Your task to perform on an android device: add a contact in the contacts app Image 0: 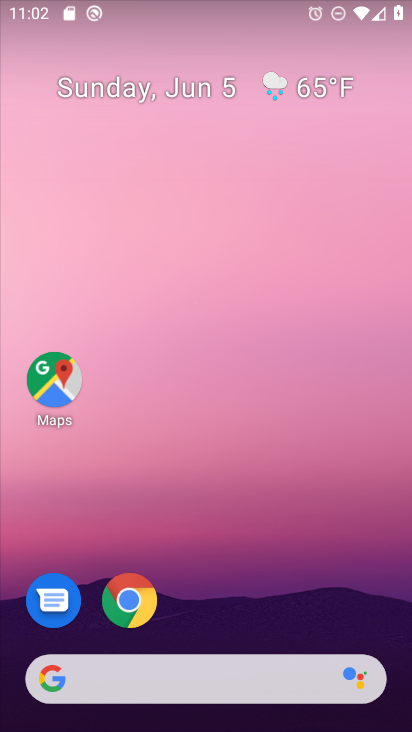
Step 0: drag from (326, 320) to (285, 140)
Your task to perform on an android device: add a contact in the contacts app Image 1: 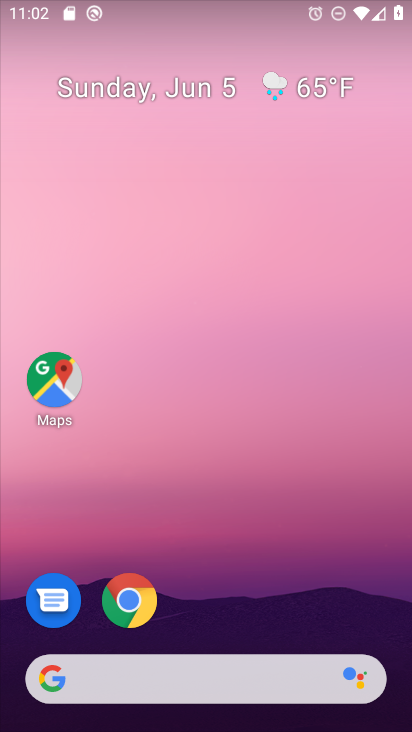
Step 1: drag from (331, 619) to (216, 4)
Your task to perform on an android device: add a contact in the contacts app Image 2: 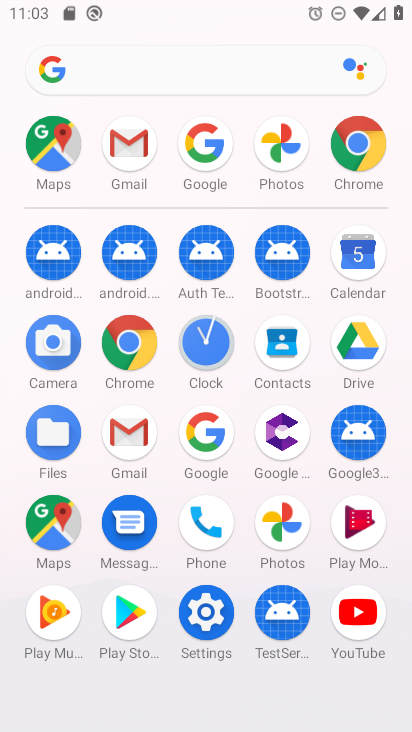
Step 2: click (286, 371)
Your task to perform on an android device: add a contact in the contacts app Image 3: 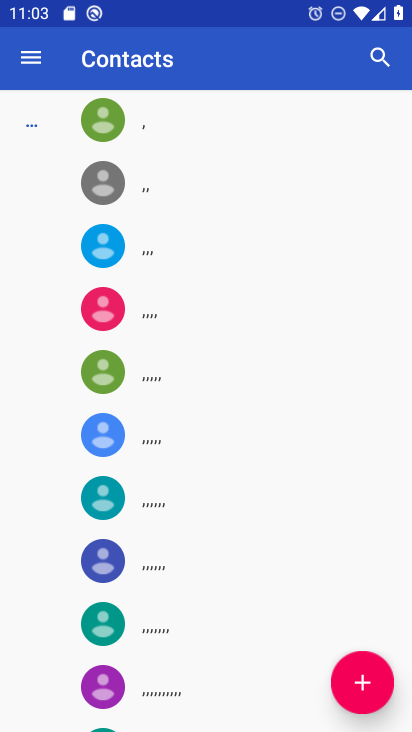
Step 3: click (337, 699)
Your task to perform on an android device: add a contact in the contacts app Image 4: 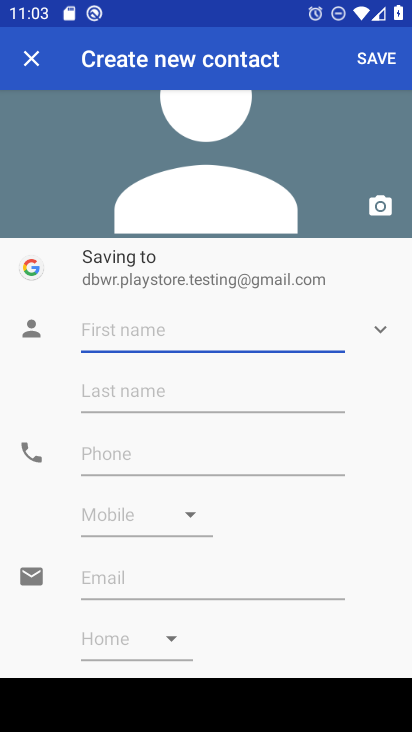
Step 4: type "jatin"
Your task to perform on an android device: add a contact in the contacts app Image 5: 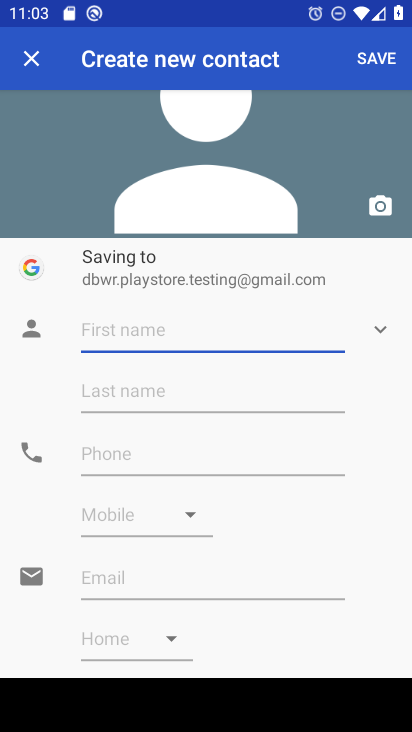
Step 5: click (370, 59)
Your task to perform on an android device: add a contact in the contacts app Image 6: 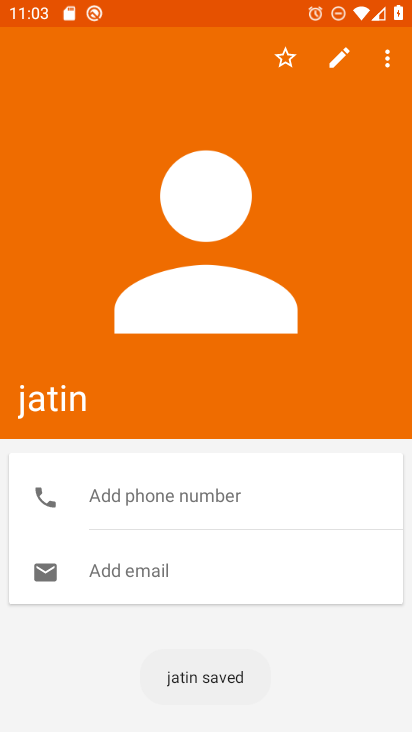
Step 6: task complete